Your task to perform on an android device: find photos in the google photos app Image 0: 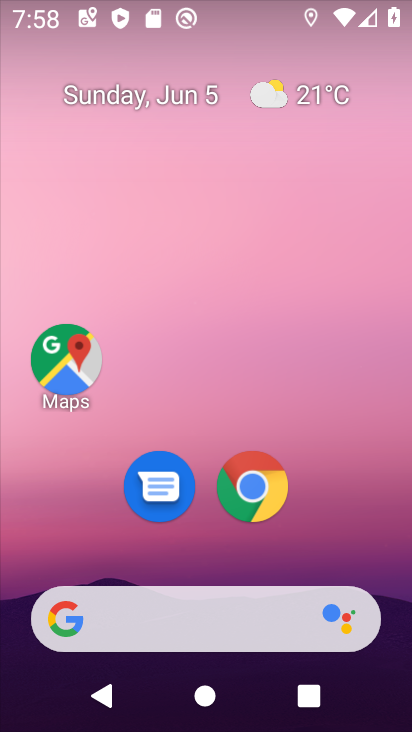
Step 0: drag from (191, 583) to (268, 94)
Your task to perform on an android device: find photos in the google photos app Image 1: 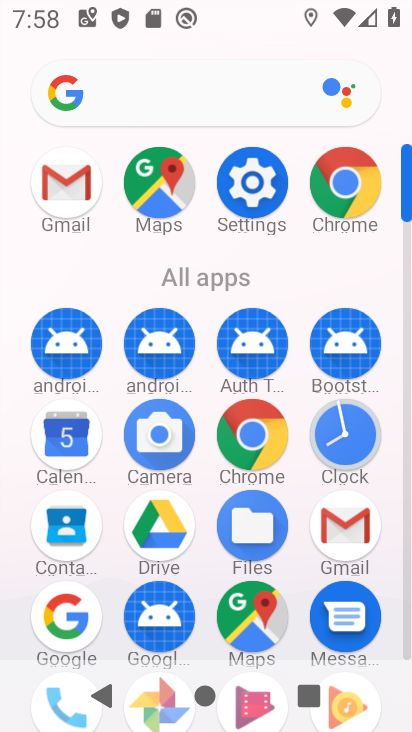
Step 1: drag from (205, 637) to (253, 282)
Your task to perform on an android device: find photos in the google photos app Image 2: 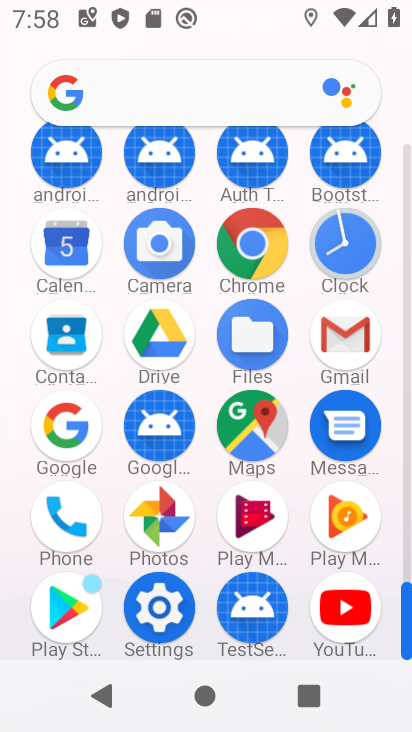
Step 2: click (157, 520)
Your task to perform on an android device: find photos in the google photos app Image 3: 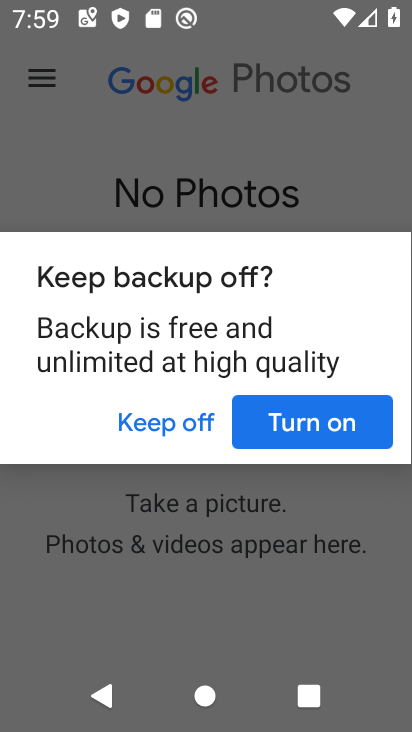
Step 3: click (153, 437)
Your task to perform on an android device: find photos in the google photos app Image 4: 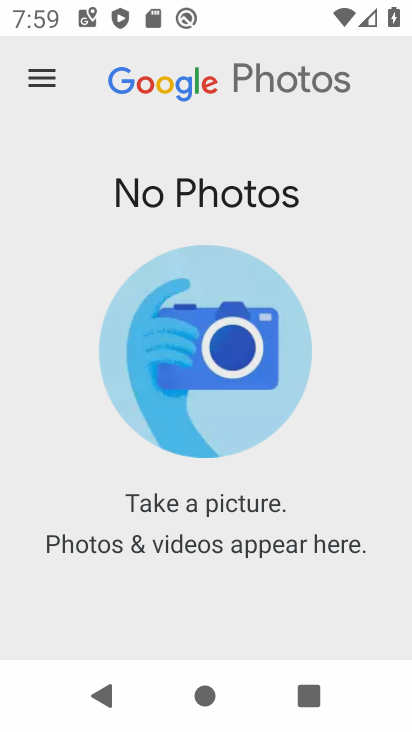
Step 4: task complete